Your task to perform on an android device: Open Maps and search for coffee Image 0: 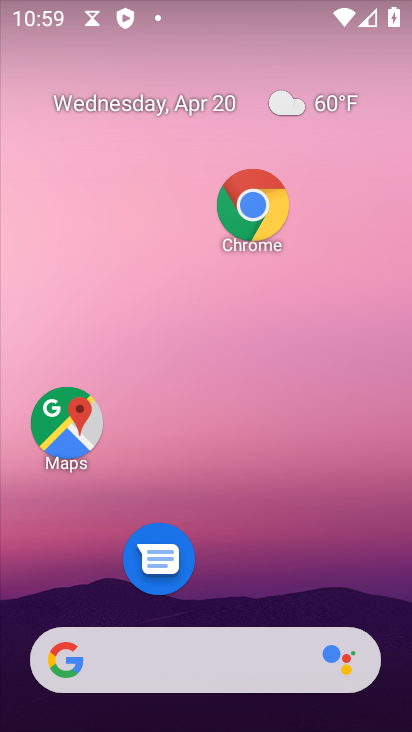
Step 0: drag from (263, 617) to (232, 22)
Your task to perform on an android device: Open Maps and search for coffee Image 1: 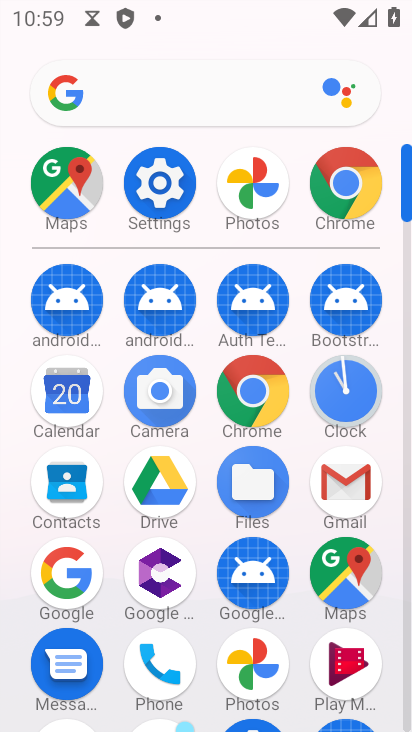
Step 1: drag from (188, 635) to (295, 728)
Your task to perform on an android device: Open Maps and search for coffee Image 2: 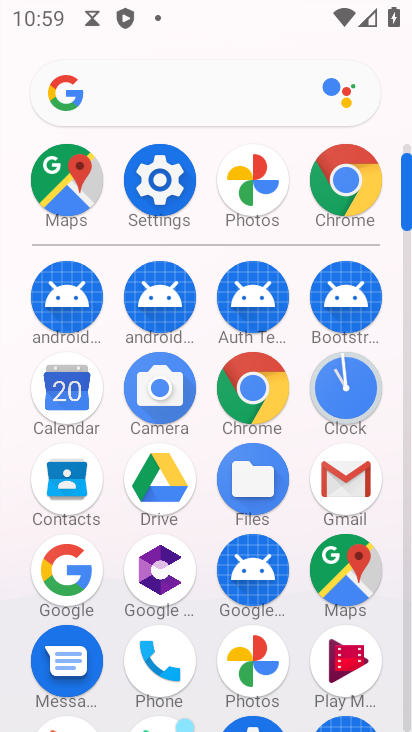
Step 2: click (357, 588)
Your task to perform on an android device: Open Maps and search for coffee Image 3: 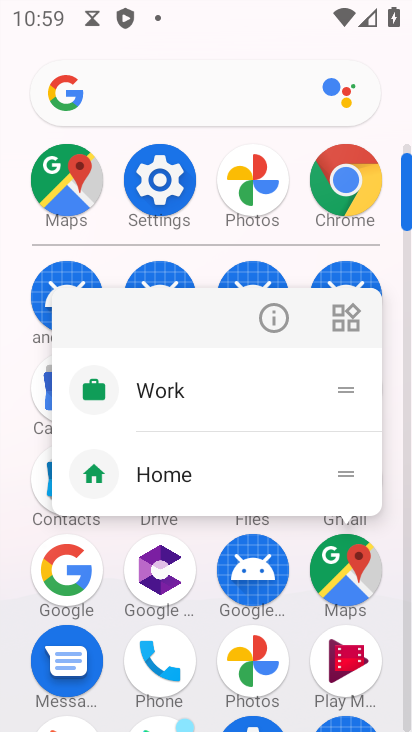
Step 3: click (338, 579)
Your task to perform on an android device: Open Maps and search for coffee Image 4: 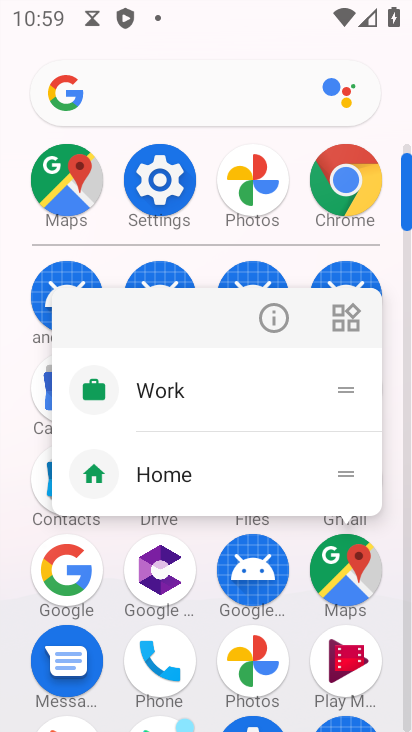
Step 4: click (338, 579)
Your task to perform on an android device: Open Maps and search for coffee Image 5: 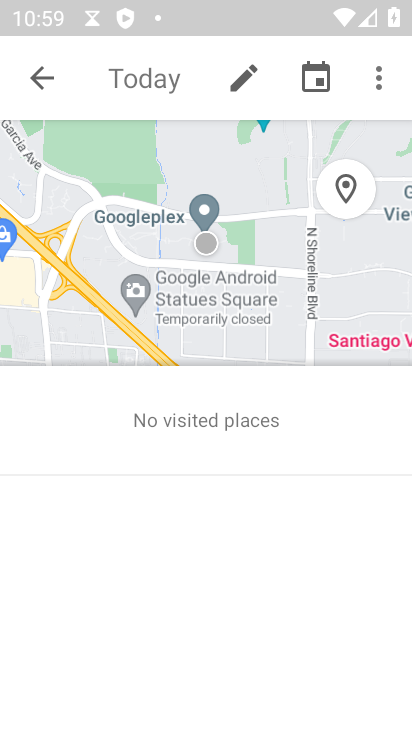
Step 5: task complete